Your task to perform on an android device: Go to settings Image 0: 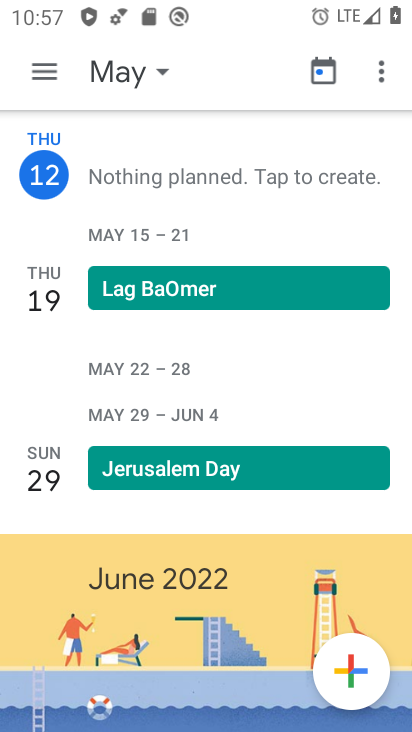
Step 0: press home button
Your task to perform on an android device: Go to settings Image 1: 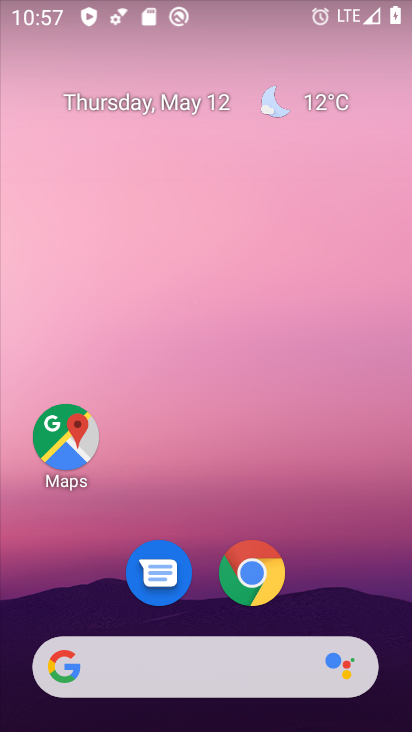
Step 1: drag from (240, 723) to (255, 186)
Your task to perform on an android device: Go to settings Image 2: 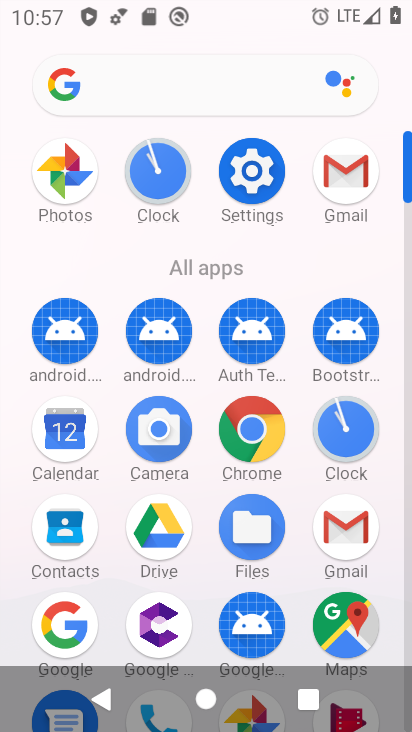
Step 2: click (256, 188)
Your task to perform on an android device: Go to settings Image 3: 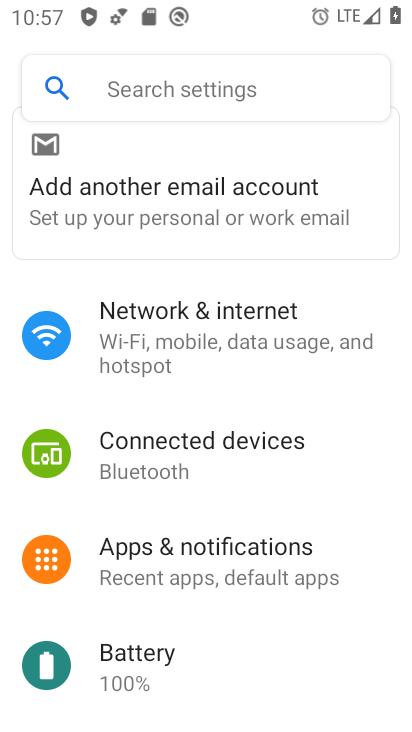
Step 3: task complete